Your task to perform on an android device: Go to notification settings Image 0: 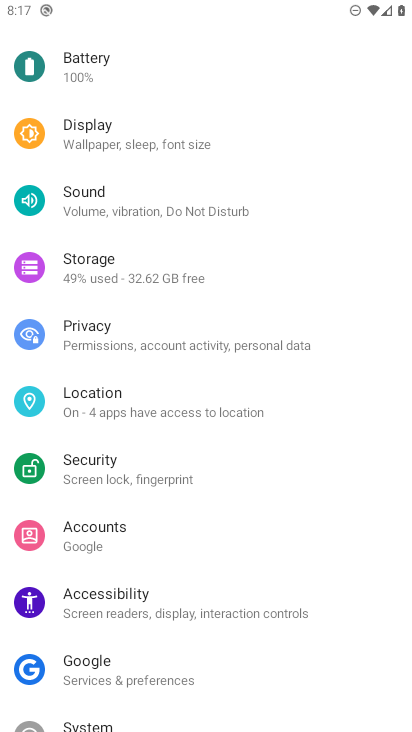
Step 0: drag from (264, 207) to (222, 568)
Your task to perform on an android device: Go to notification settings Image 1: 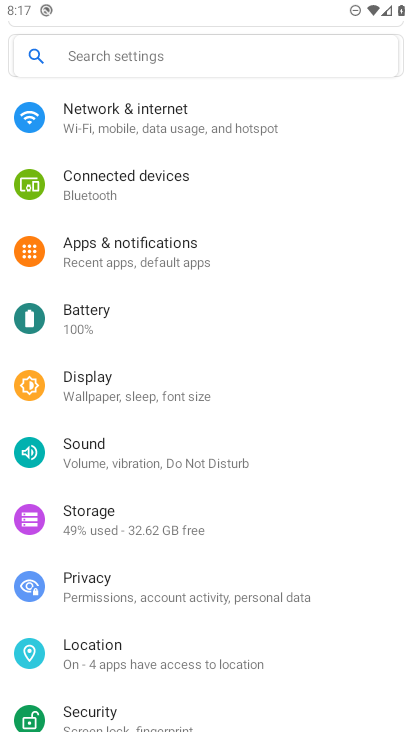
Step 1: click (144, 245)
Your task to perform on an android device: Go to notification settings Image 2: 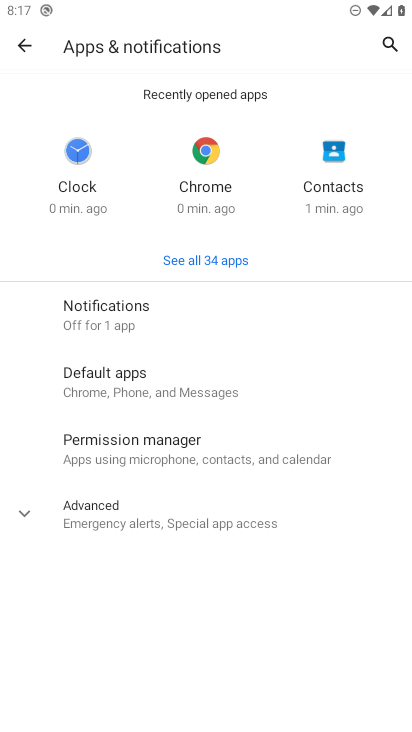
Step 2: click (129, 521)
Your task to perform on an android device: Go to notification settings Image 3: 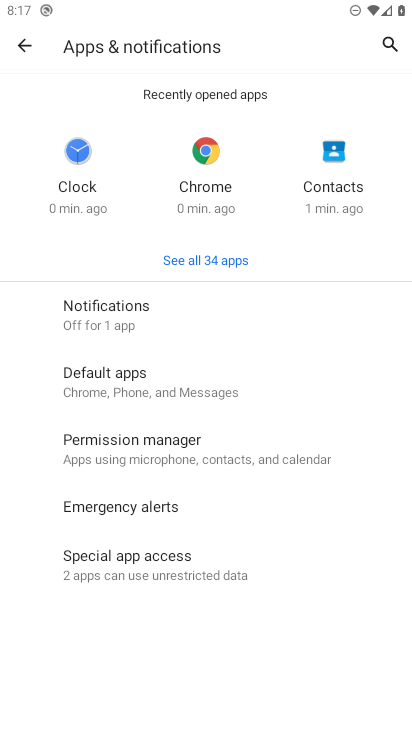
Step 3: task complete